Your task to perform on an android device: Go to Android settings Image 0: 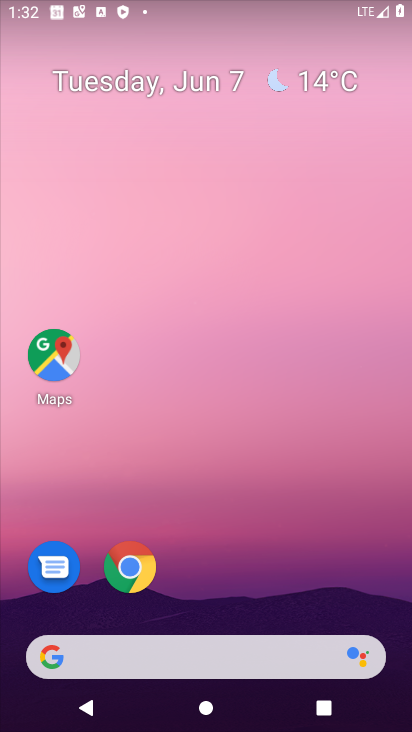
Step 0: drag from (333, 667) to (293, 20)
Your task to perform on an android device: Go to Android settings Image 1: 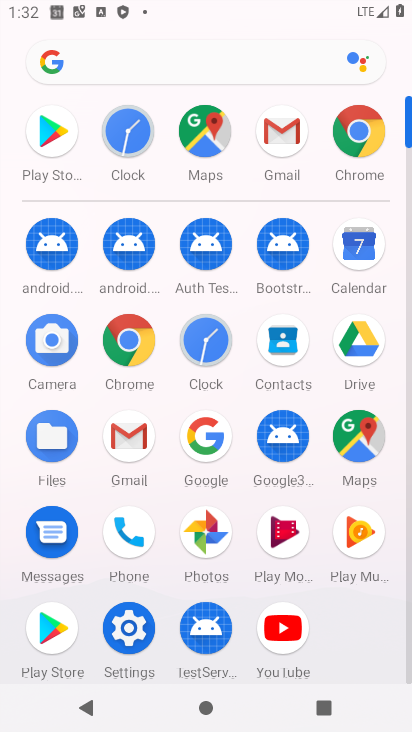
Step 1: click (136, 627)
Your task to perform on an android device: Go to Android settings Image 2: 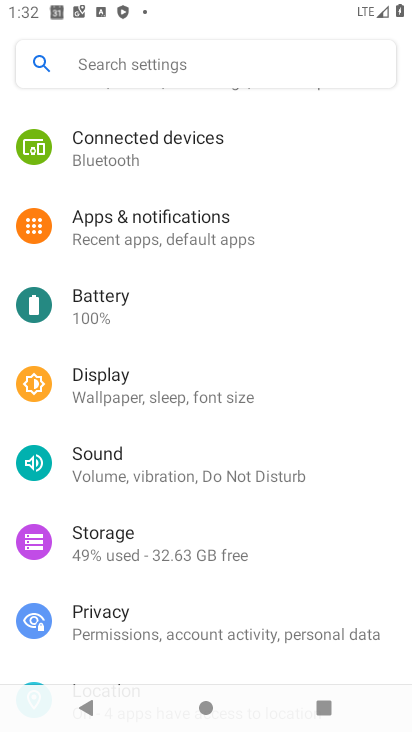
Step 2: drag from (168, 567) to (225, 73)
Your task to perform on an android device: Go to Android settings Image 3: 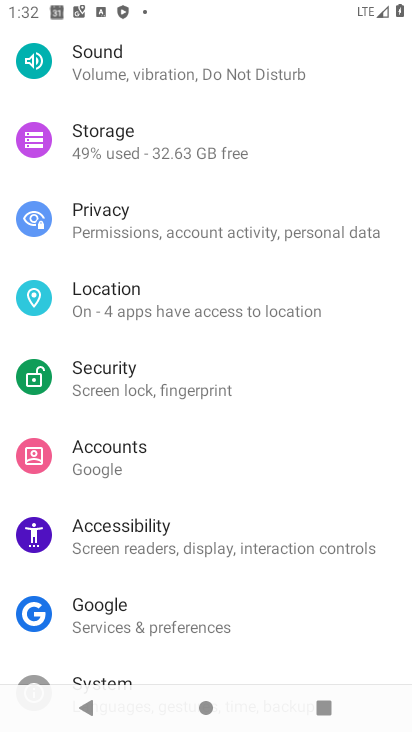
Step 3: drag from (146, 647) to (221, 166)
Your task to perform on an android device: Go to Android settings Image 4: 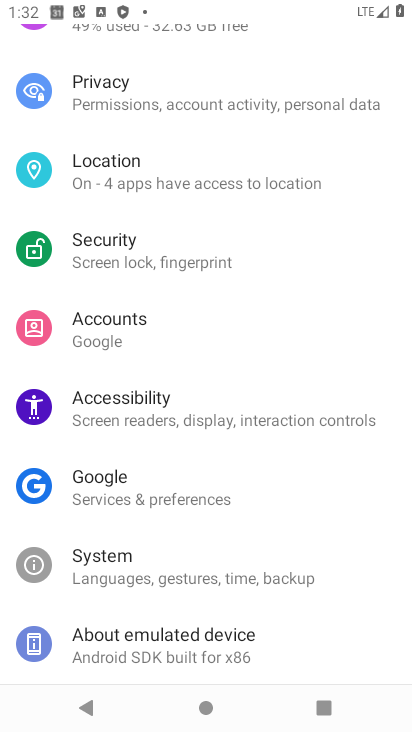
Step 4: click (140, 643)
Your task to perform on an android device: Go to Android settings Image 5: 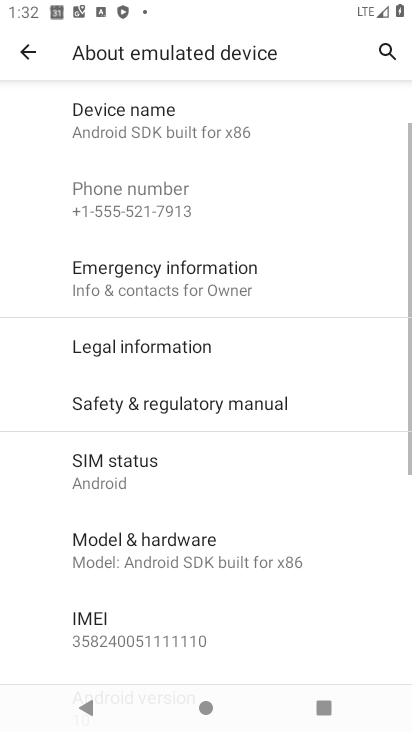
Step 5: drag from (160, 147) to (154, 396)
Your task to perform on an android device: Go to Android settings Image 6: 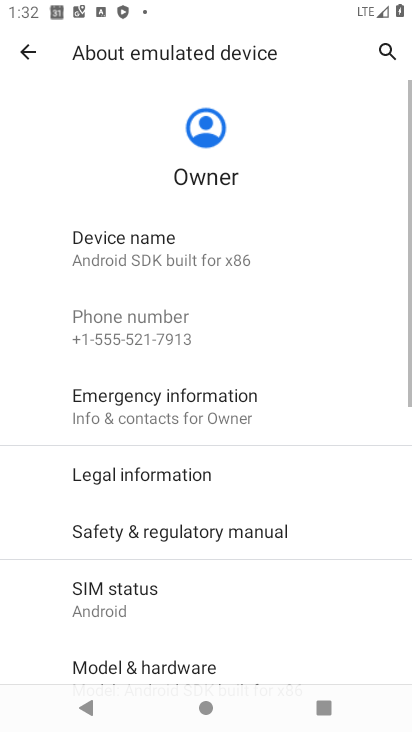
Step 6: drag from (207, 578) to (209, 331)
Your task to perform on an android device: Go to Android settings Image 7: 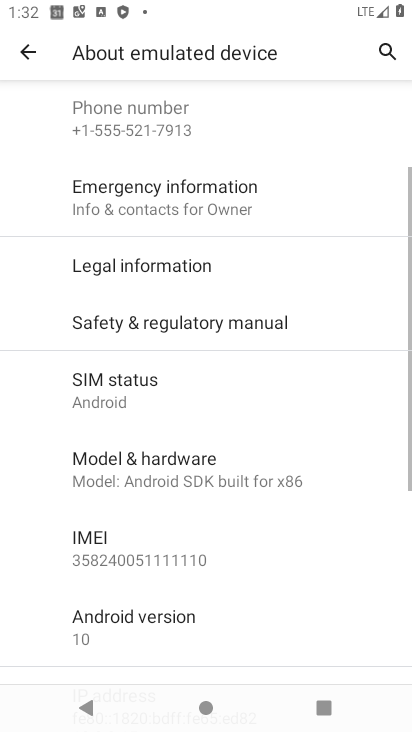
Step 7: click (160, 629)
Your task to perform on an android device: Go to Android settings Image 8: 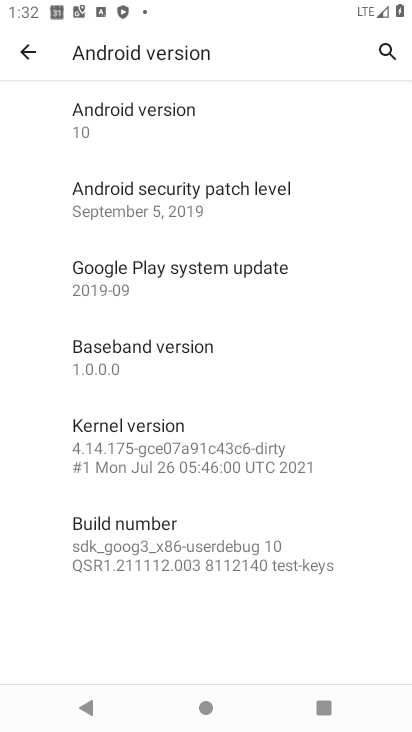
Step 8: task complete